Your task to perform on an android device: Show me recent news Image 0: 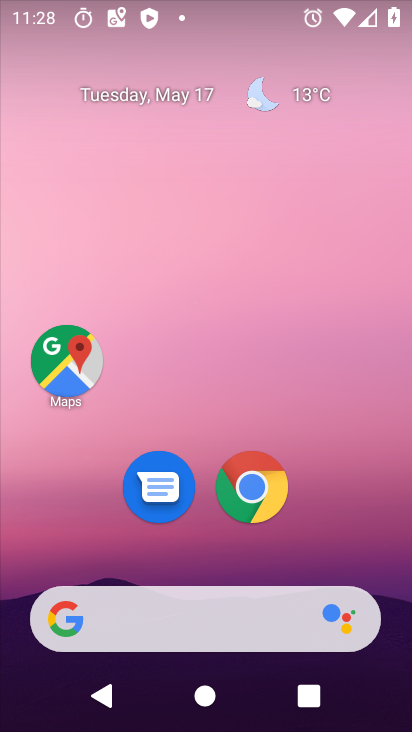
Step 0: drag from (4, 289) to (17, 193)
Your task to perform on an android device: Show me recent news Image 1: 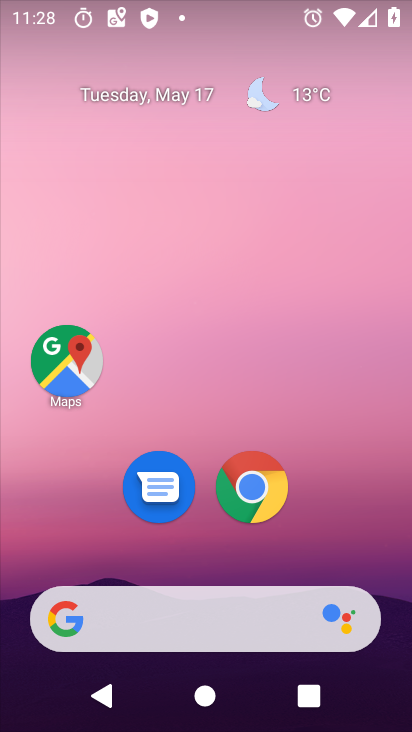
Step 1: task complete